Your task to perform on an android device: turn on javascript in the chrome app Image 0: 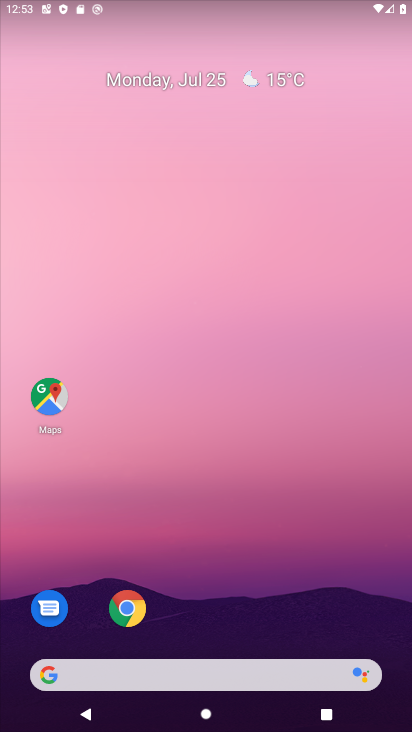
Step 0: drag from (245, 443) to (294, 106)
Your task to perform on an android device: turn on javascript in the chrome app Image 1: 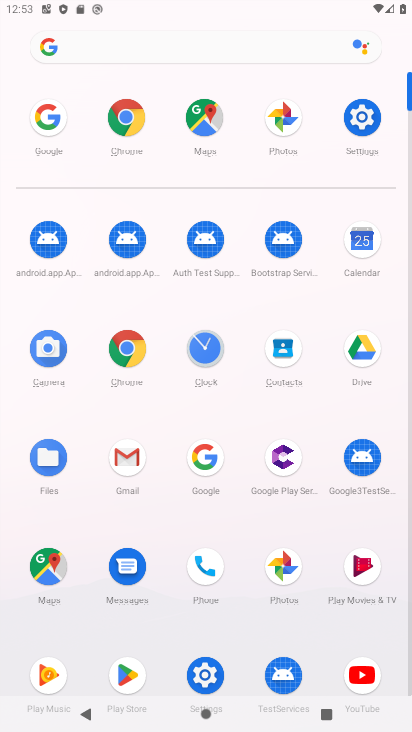
Step 1: click (130, 361)
Your task to perform on an android device: turn on javascript in the chrome app Image 2: 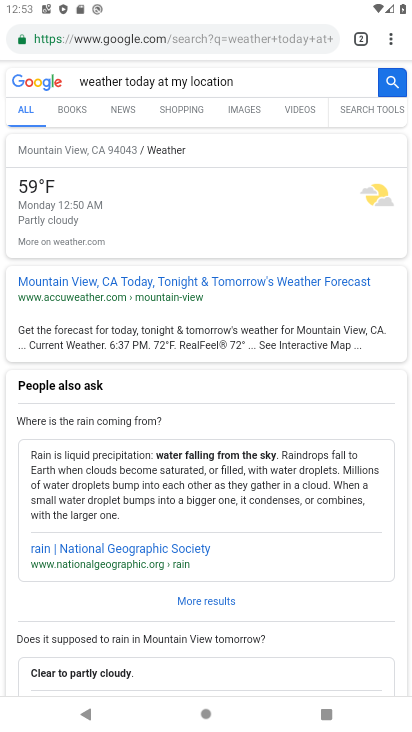
Step 2: click (389, 38)
Your task to perform on an android device: turn on javascript in the chrome app Image 3: 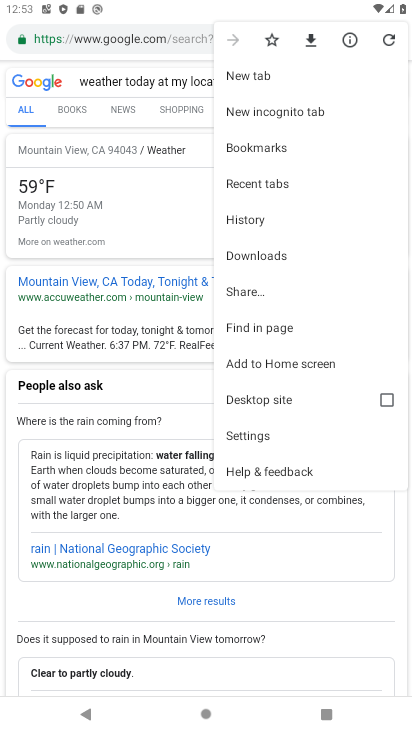
Step 3: click (255, 440)
Your task to perform on an android device: turn on javascript in the chrome app Image 4: 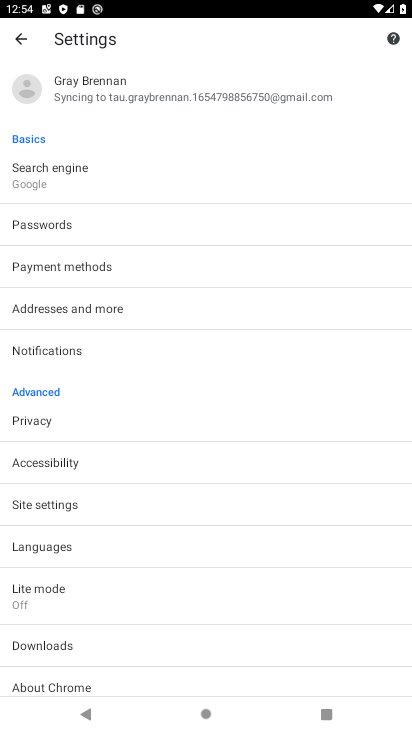
Step 4: click (121, 503)
Your task to perform on an android device: turn on javascript in the chrome app Image 5: 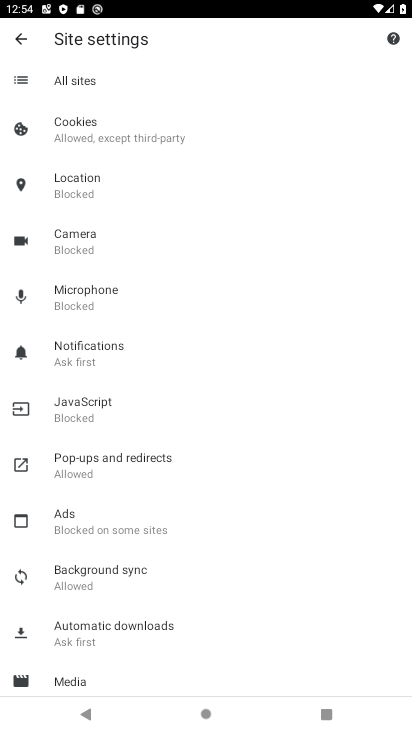
Step 5: click (166, 419)
Your task to perform on an android device: turn on javascript in the chrome app Image 6: 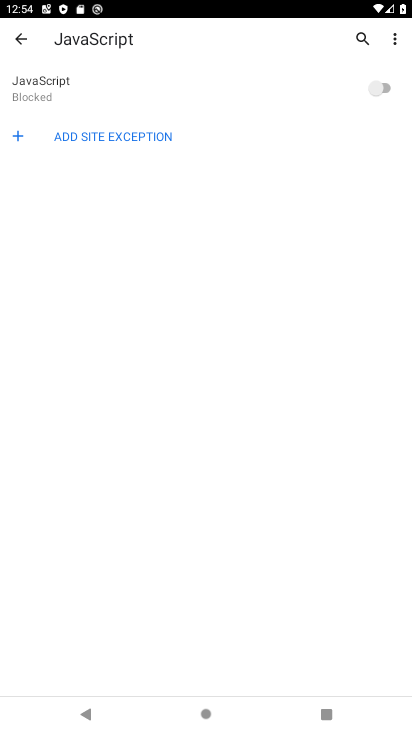
Step 6: click (378, 94)
Your task to perform on an android device: turn on javascript in the chrome app Image 7: 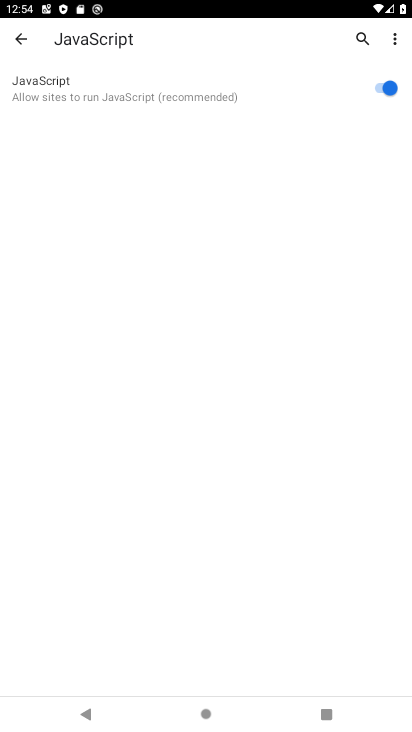
Step 7: task complete